Your task to perform on an android device: Open the web browser Image 0: 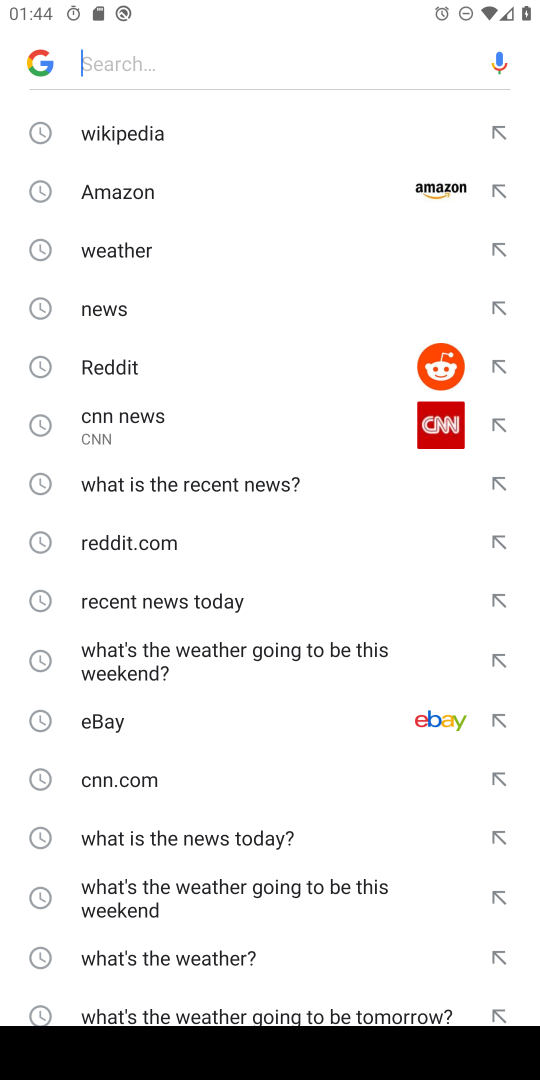
Step 0: task complete